Your task to perform on an android device: Open Google Chrome and open the bookmarks view Image 0: 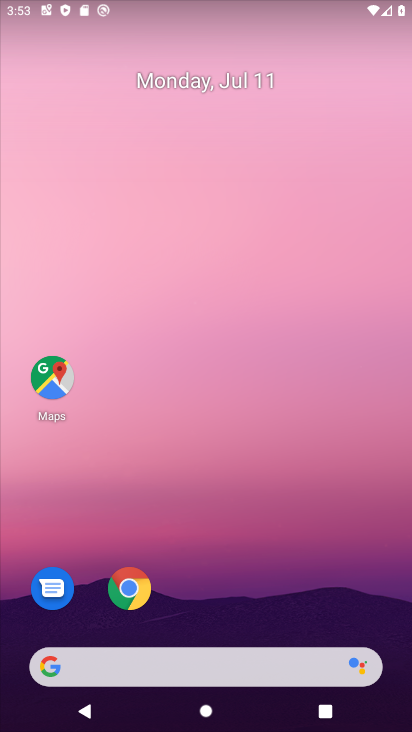
Step 0: click (125, 592)
Your task to perform on an android device: Open Google Chrome and open the bookmarks view Image 1: 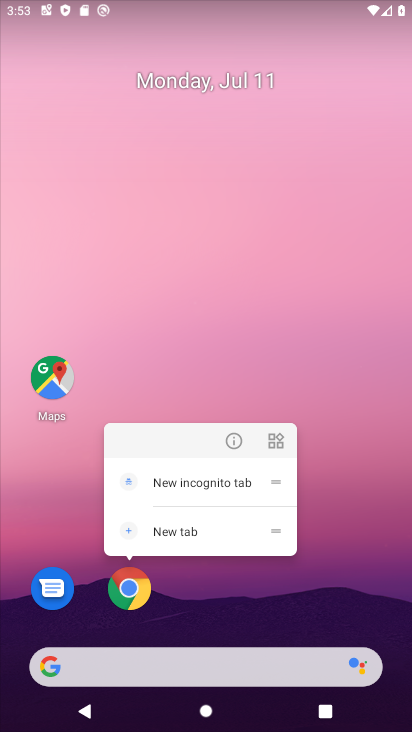
Step 1: click (125, 592)
Your task to perform on an android device: Open Google Chrome and open the bookmarks view Image 2: 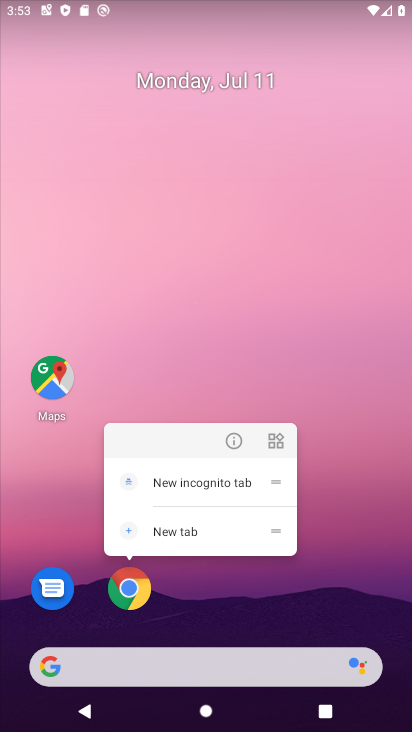
Step 2: click (125, 592)
Your task to perform on an android device: Open Google Chrome and open the bookmarks view Image 3: 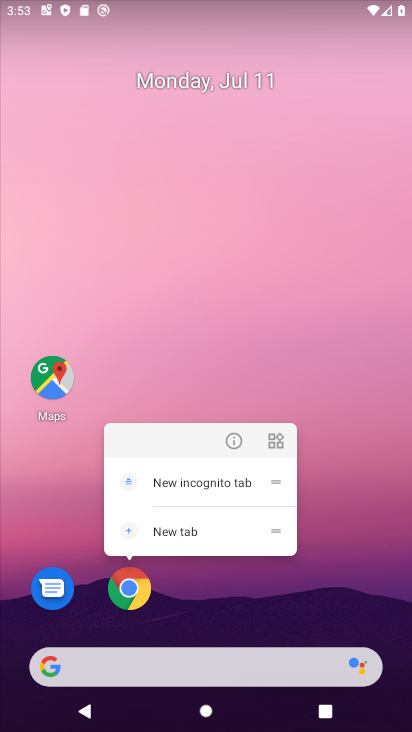
Step 3: click (125, 592)
Your task to perform on an android device: Open Google Chrome and open the bookmarks view Image 4: 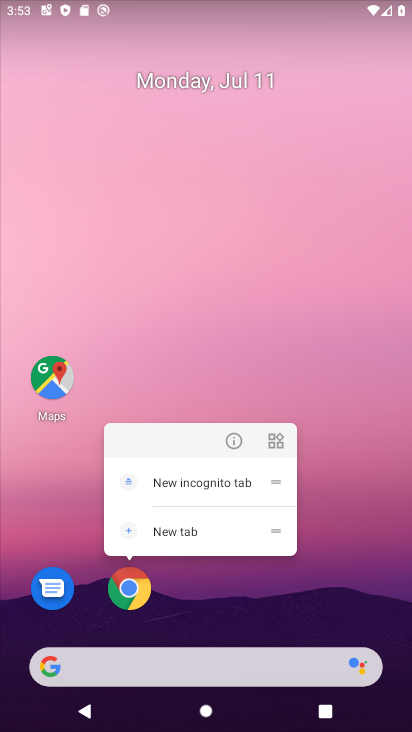
Step 4: click (125, 597)
Your task to perform on an android device: Open Google Chrome and open the bookmarks view Image 5: 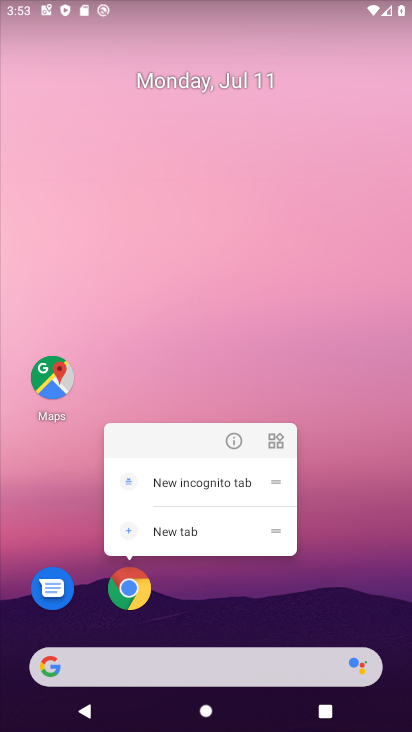
Step 5: click (251, 592)
Your task to perform on an android device: Open Google Chrome and open the bookmarks view Image 6: 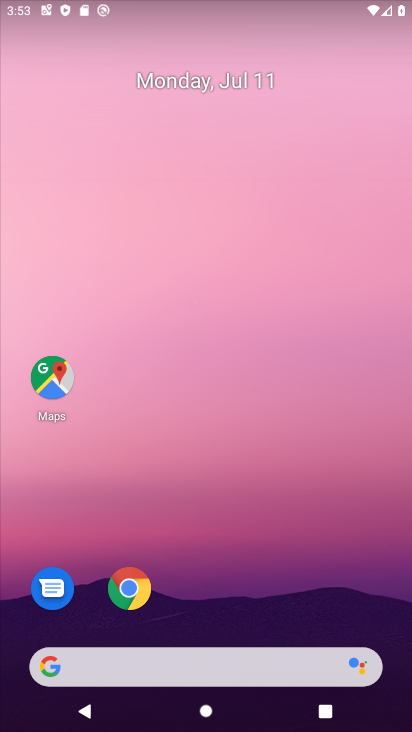
Step 6: drag from (293, 611) to (223, 175)
Your task to perform on an android device: Open Google Chrome and open the bookmarks view Image 7: 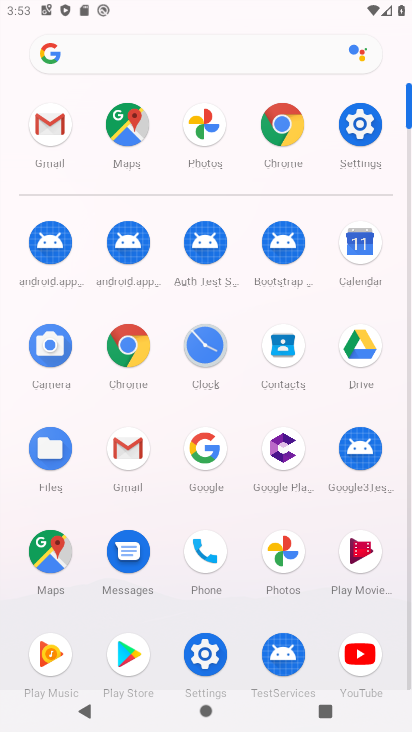
Step 7: click (124, 350)
Your task to perform on an android device: Open Google Chrome and open the bookmarks view Image 8: 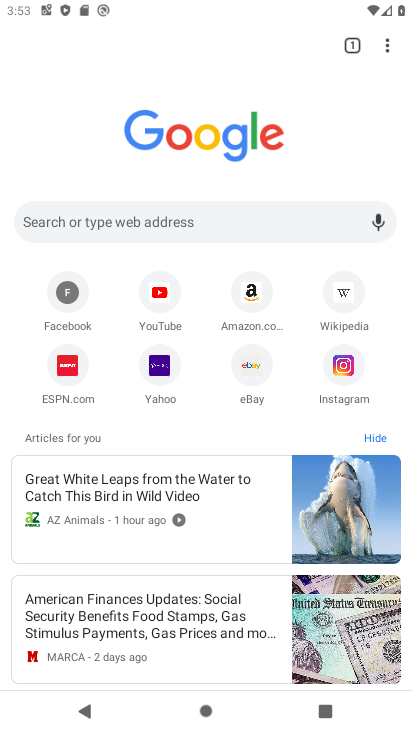
Step 8: task complete